Your task to perform on an android device: Open my contact list Image 0: 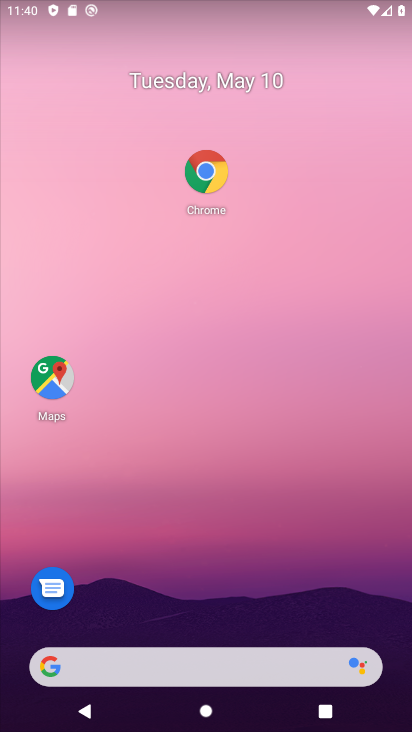
Step 0: drag from (257, 609) to (257, 302)
Your task to perform on an android device: Open my contact list Image 1: 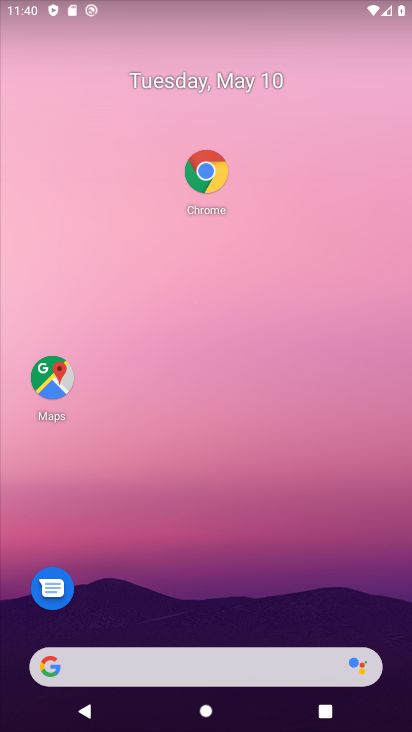
Step 1: drag from (261, 607) to (287, 296)
Your task to perform on an android device: Open my contact list Image 2: 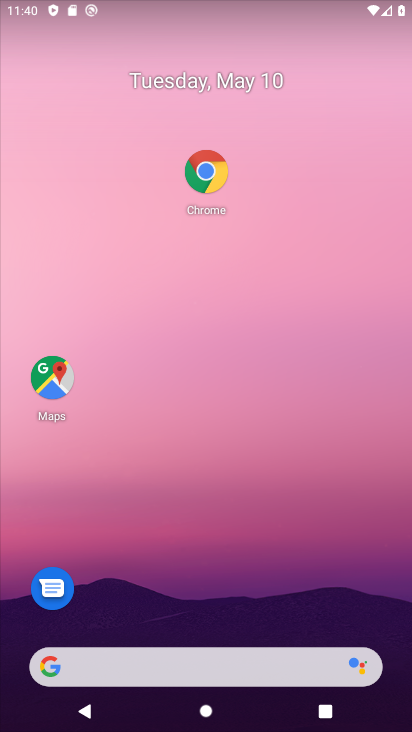
Step 2: drag from (237, 625) to (249, 249)
Your task to perform on an android device: Open my contact list Image 3: 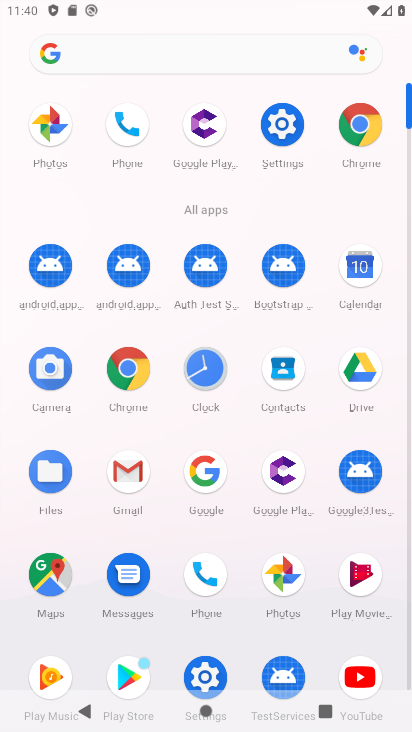
Step 3: click (203, 571)
Your task to perform on an android device: Open my contact list Image 4: 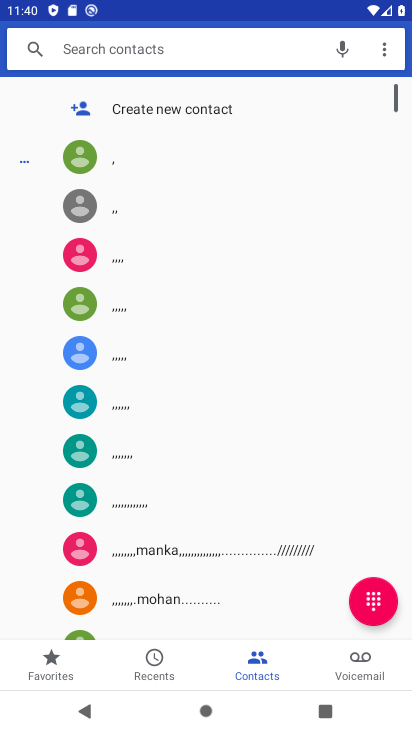
Step 4: click (245, 666)
Your task to perform on an android device: Open my contact list Image 5: 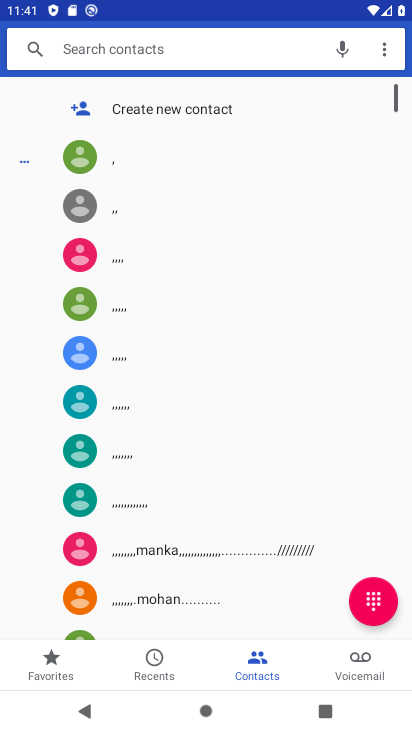
Step 5: task complete